Your task to perform on an android device: change alarm snooze length Image 0: 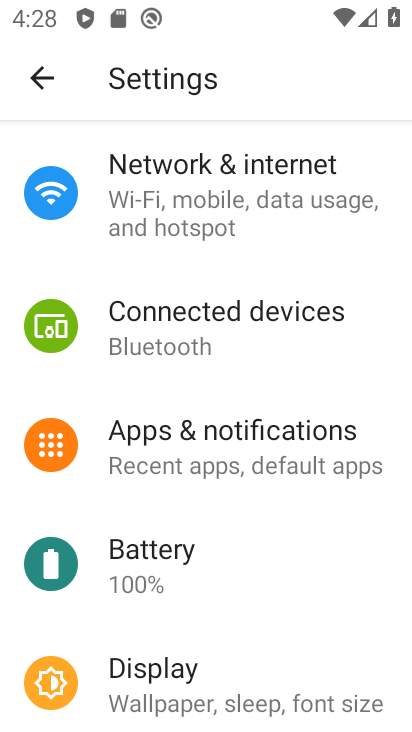
Step 0: press home button
Your task to perform on an android device: change alarm snooze length Image 1: 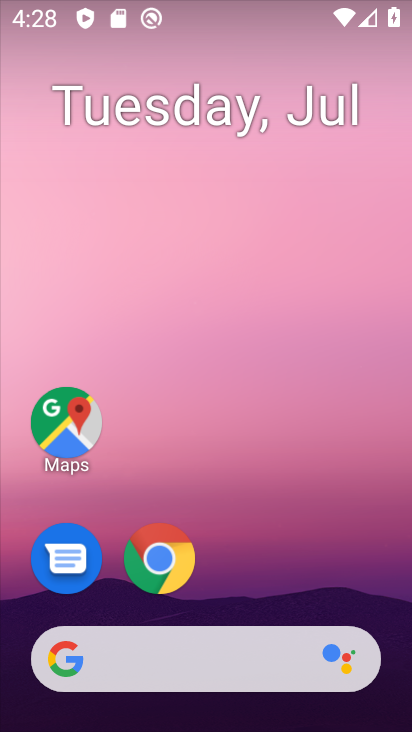
Step 1: drag from (268, 647) to (314, 179)
Your task to perform on an android device: change alarm snooze length Image 2: 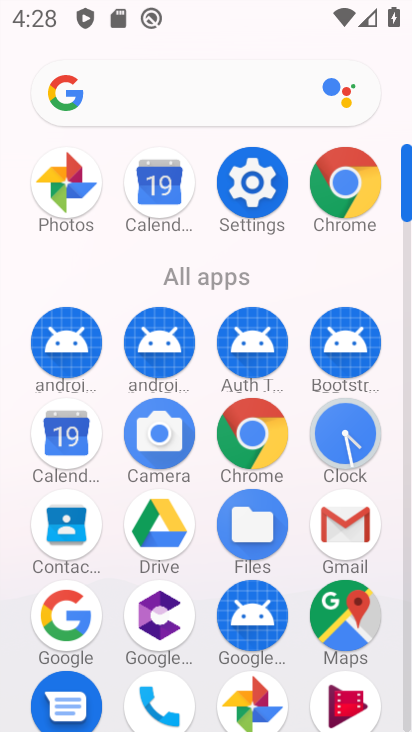
Step 2: click (348, 434)
Your task to perform on an android device: change alarm snooze length Image 3: 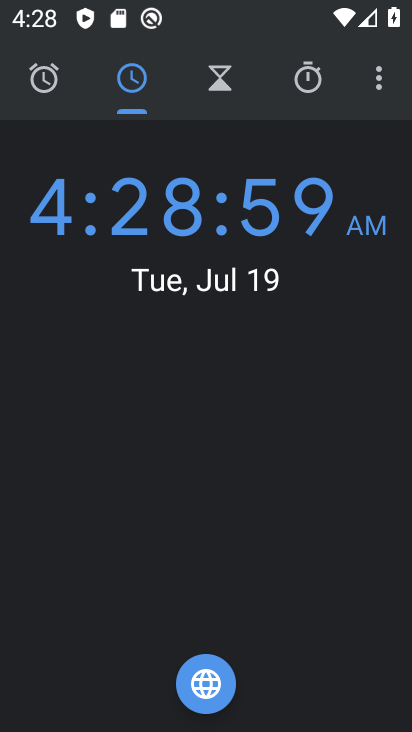
Step 3: click (376, 95)
Your task to perform on an android device: change alarm snooze length Image 4: 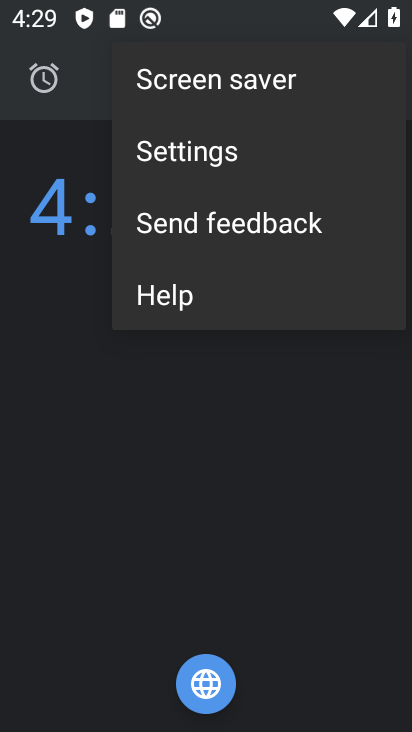
Step 4: click (218, 161)
Your task to perform on an android device: change alarm snooze length Image 5: 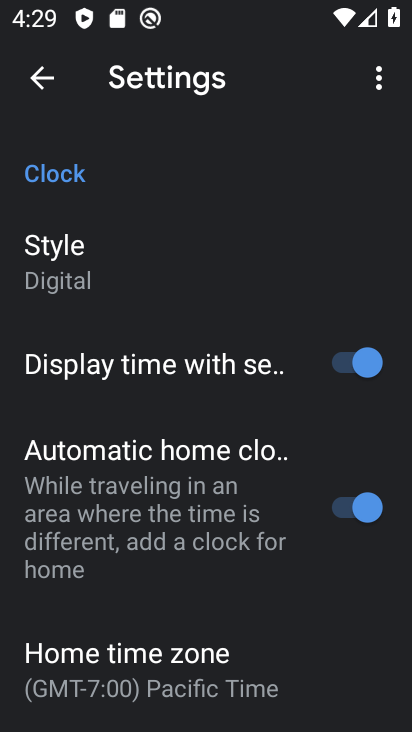
Step 5: drag from (173, 540) to (193, 272)
Your task to perform on an android device: change alarm snooze length Image 6: 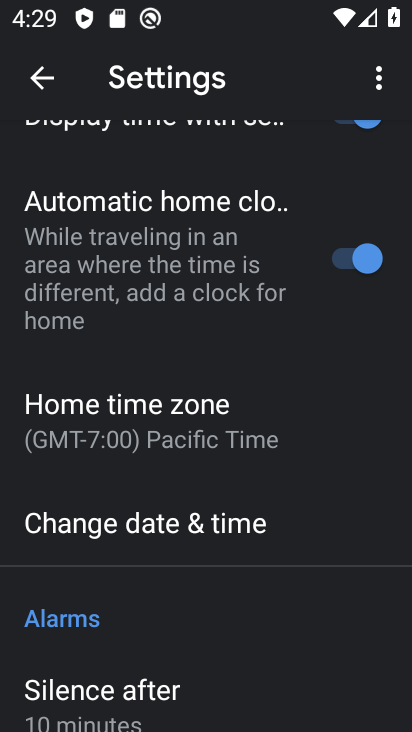
Step 6: drag from (175, 569) to (202, 365)
Your task to perform on an android device: change alarm snooze length Image 7: 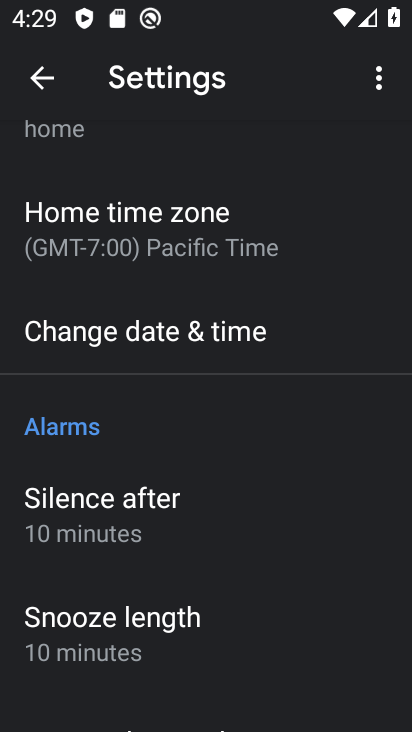
Step 7: click (152, 647)
Your task to perform on an android device: change alarm snooze length Image 8: 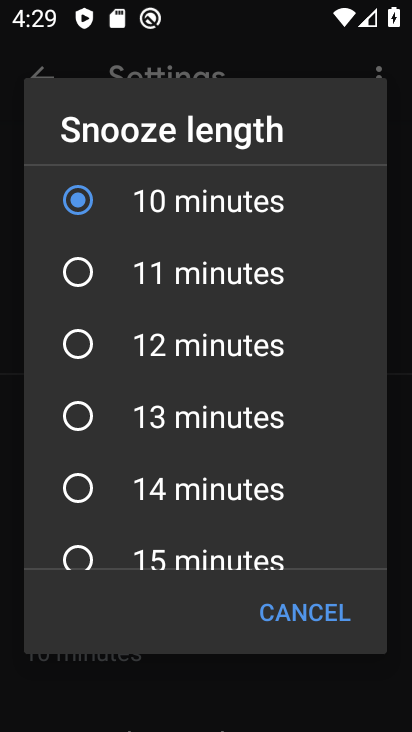
Step 8: click (99, 356)
Your task to perform on an android device: change alarm snooze length Image 9: 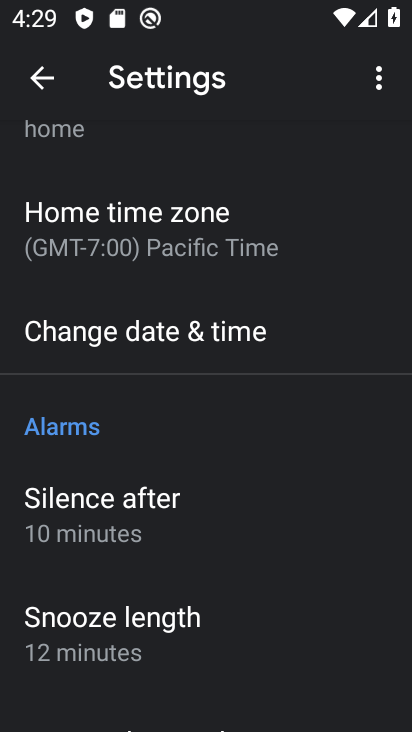
Step 9: task complete